Your task to perform on an android device: Search for vegetarian restaurants on Maps Image 0: 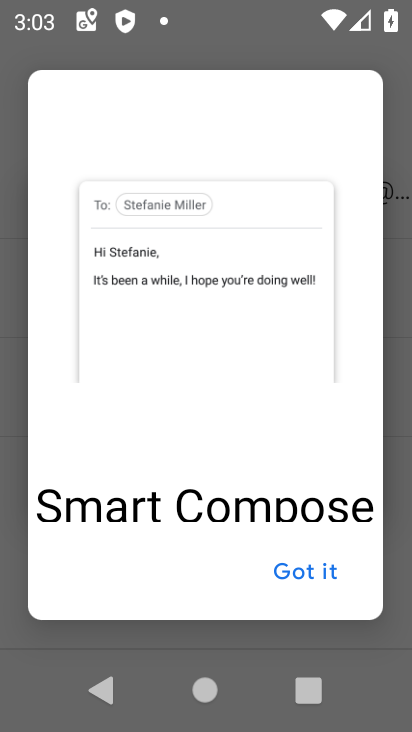
Step 0: press home button
Your task to perform on an android device: Search for vegetarian restaurants on Maps Image 1: 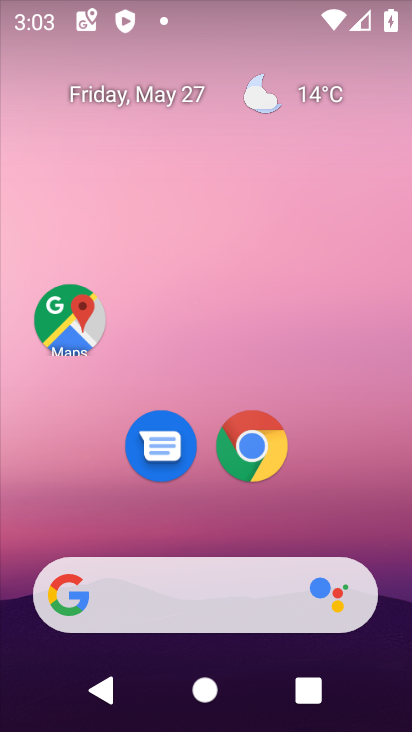
Step 1: click (62, 325)
Your task to perform on an android device: Search for vegetarian restaurants on Maps Image 2: 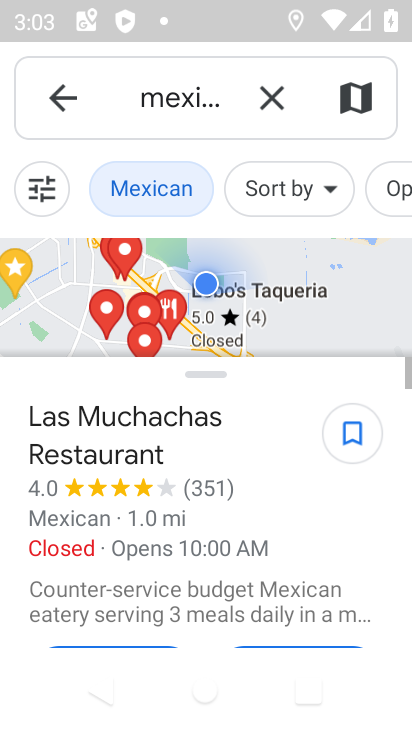
Step 2: click (274, 97)
Your task to perform on an android device: Search for vegetarian restaurants on Maps Image 3: 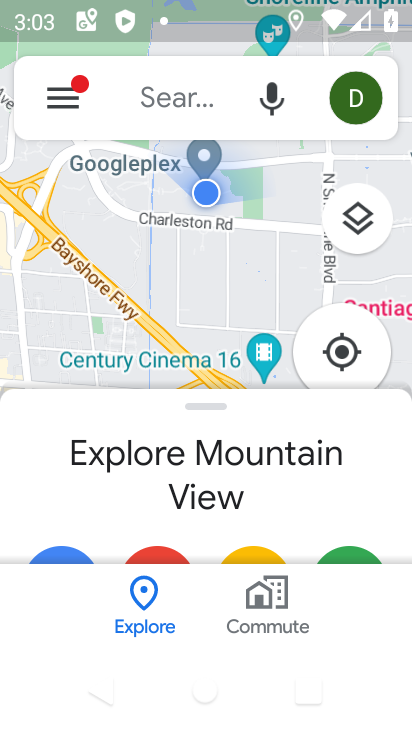
Step 3: click (191, 97)
Your task to perform on an android device: Search for vegetarian restaurants on Maps Image 4: 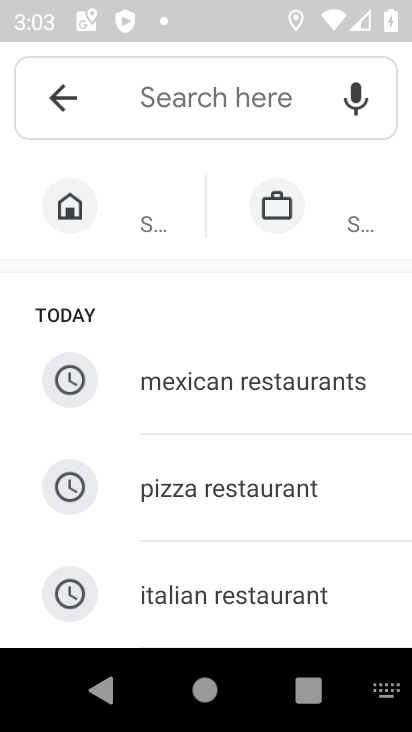
Step 4: drag from (266, 556) to (344, 120)
Your task to perform on an android device: Search for vegetarian restaurants on Maps Image 5: 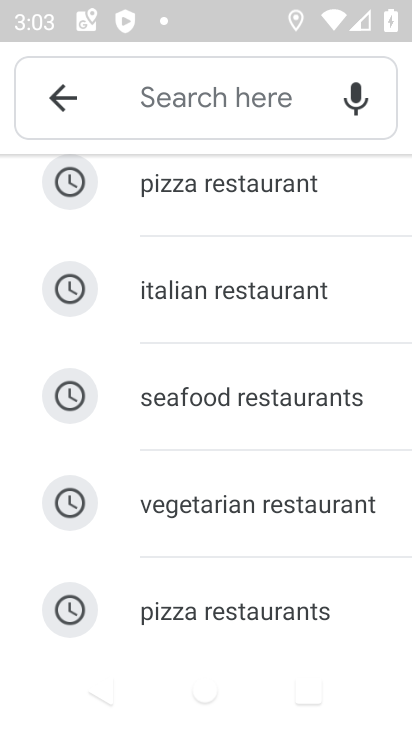
Step 5: click (248, 510)
Your task to perform on an android device: Search for vegetarian restaurants on Maps Image 6: 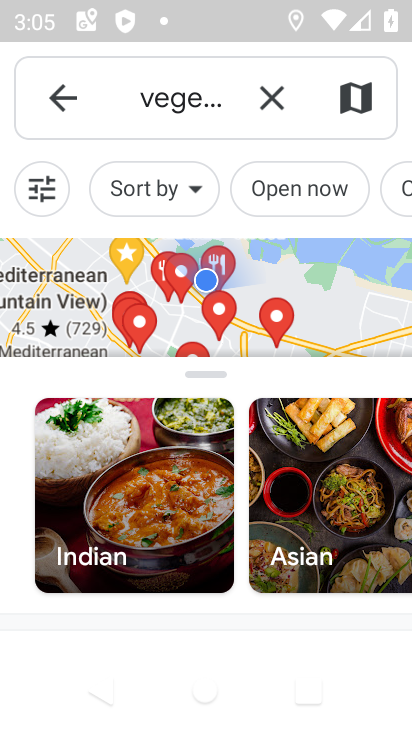
Step 6: task complete